Your task to perform on an android device: change the clock style Image 0: 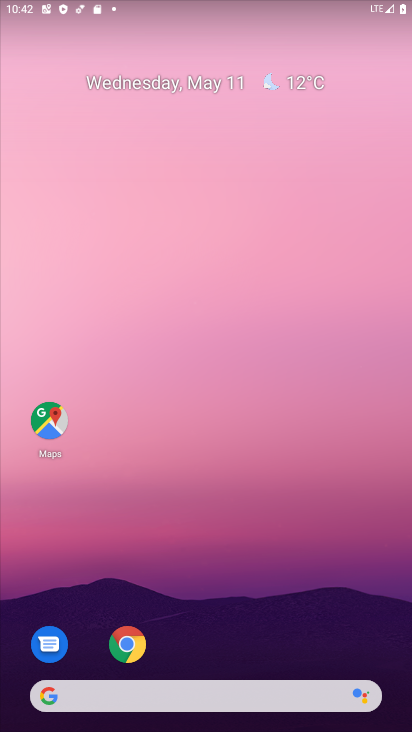
Step 0: drag from (234, 634) to (280, 133)
Your task to perform on an android device: change the clock style Image 1: 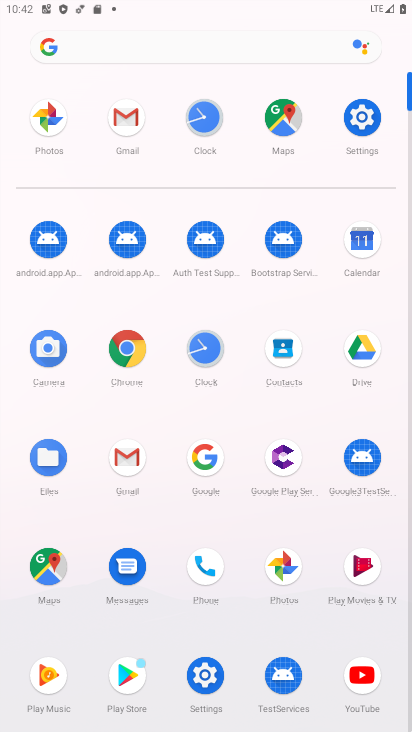
Step 1: click (208, 123)
Your task to perform on an android device: change the clock style Image 2: 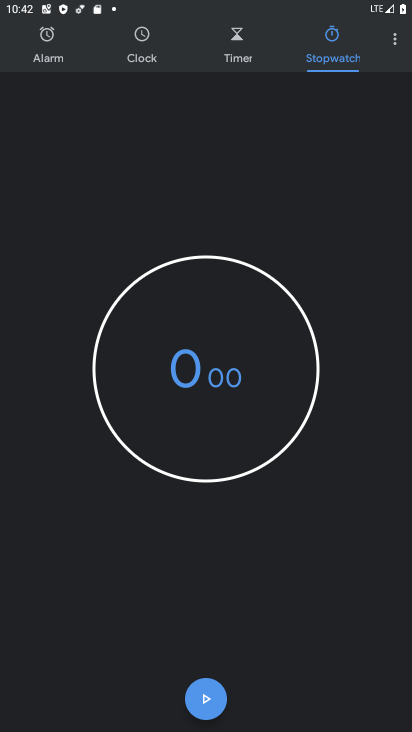
Step 2: click (392, 44)
Your task to perform on an android device: change the clock style Image 3: 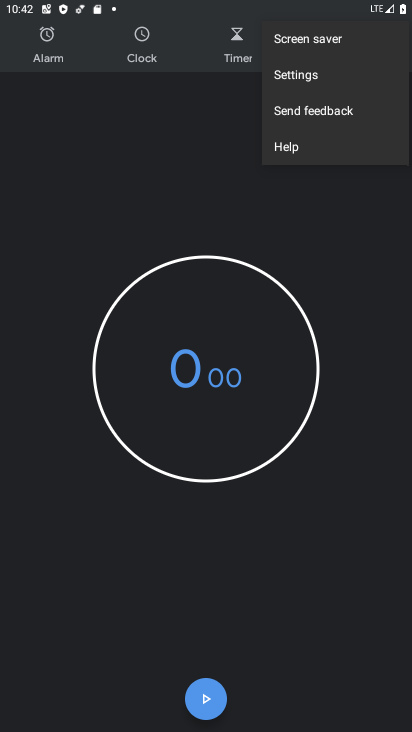
Step 3: click (331, 67)
Your task to perform on an android device: change the clock style Image 4: 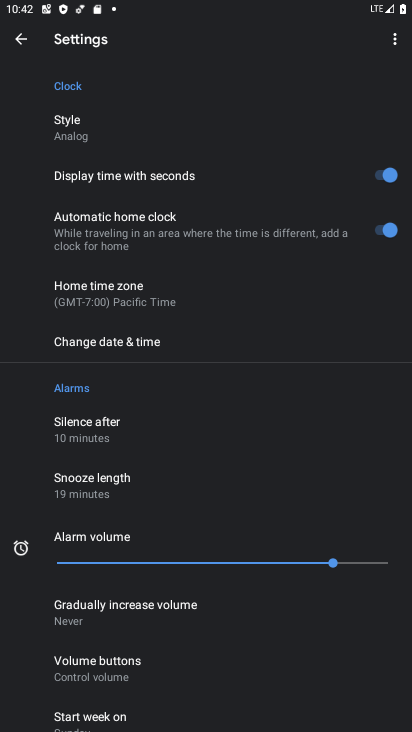
Step 4: click (241, 126)
Your task to perform on an android device: change the clock style Image 5: 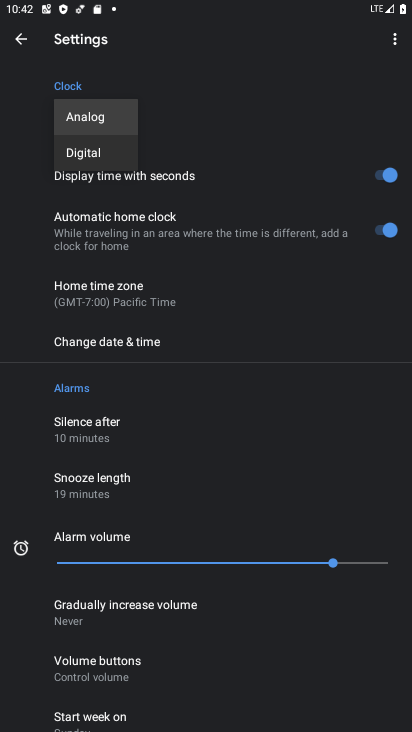
Step 5: click (104, 159)
Your task to perform on an android device: change the clock style Image 6: 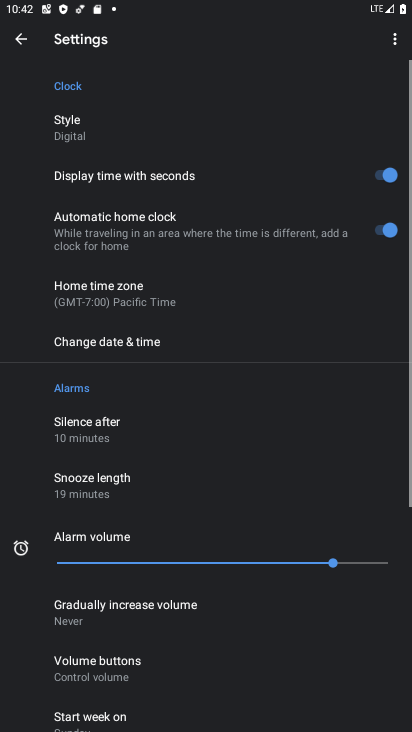
Step 6: task complete